Your task to perform on an android device: Open the phone app and click the voicemail tab. Image 0: 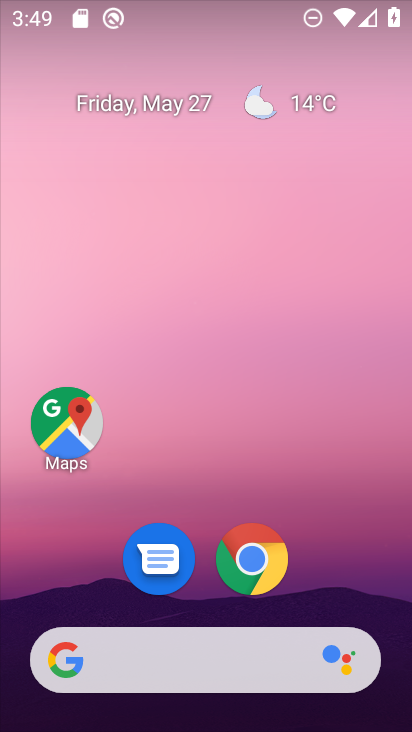
Step 0: drag from (350, 598) to (377, 149)
Your task to perform on an android device: Open the phone app and click the voicemail tab. Image 1: 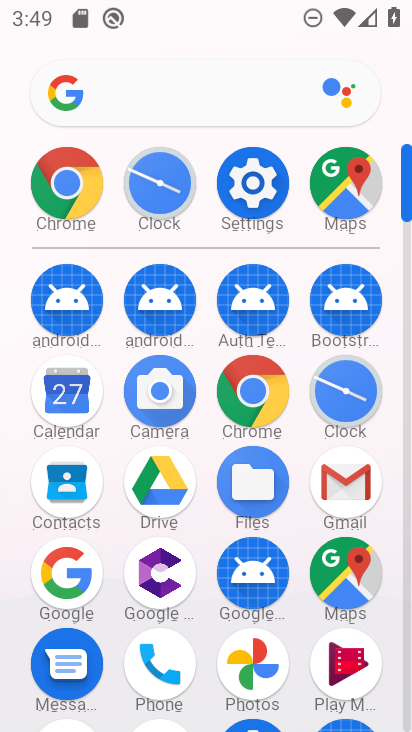
Step 1: click (172, 669)
Your task to perform on an android device: Open the phone app and click the voicemail tab. Image 2: 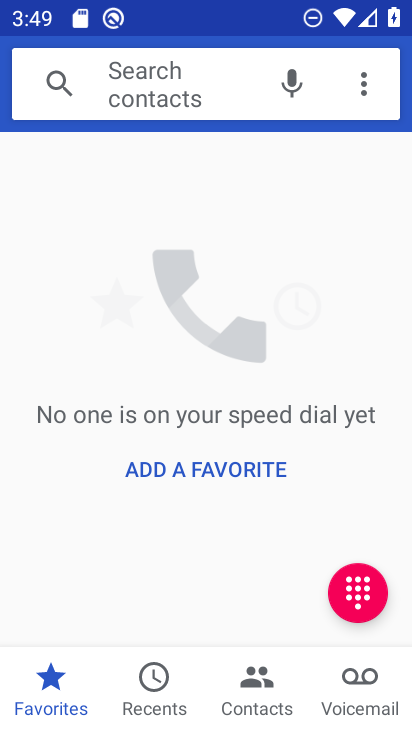
Step 2: click (362, 694)
Your task to perform on an android device: Open the phone app and click the voicemail tab. Image 3: 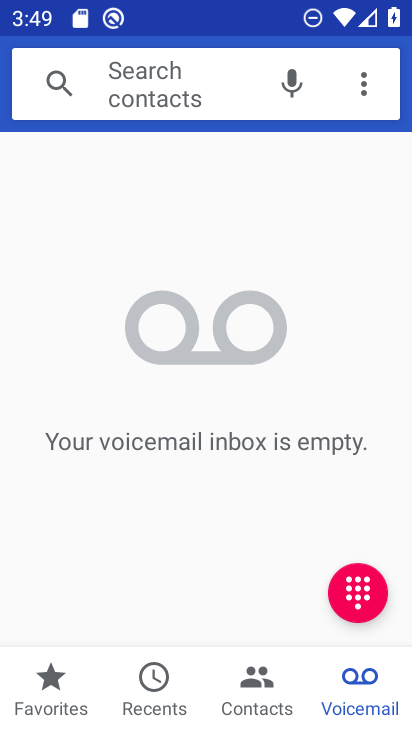
Step 3: task complete